Your task to perform on an android device: open app "Pinterest" (install if not already installed), go to login, and select forgot password Image 0: 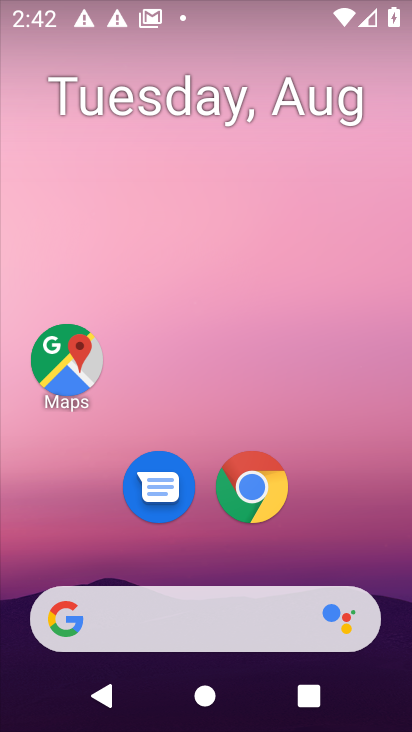
Step 0: drag from (194, 601) to (232, 29)
Your task to perform on an android device: open app "Pinterest" (install if not already installed), go to login, and select forgot password Image 1: 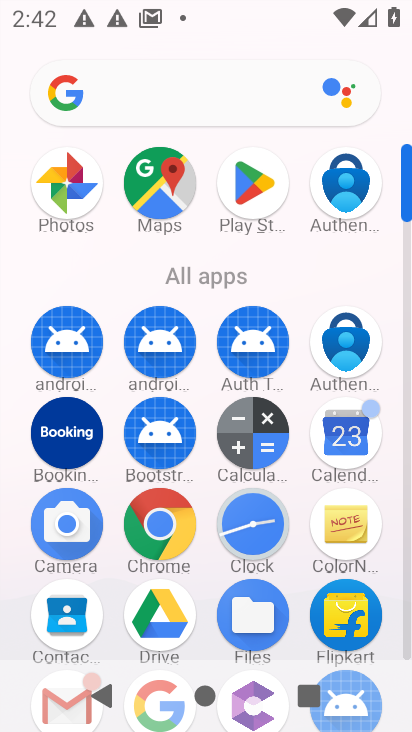
Step 1: click (255, 184)
Your task to perform on an android device: open app "Pinterest" (install if not already installed), go to login, and select forgot password Image 2: 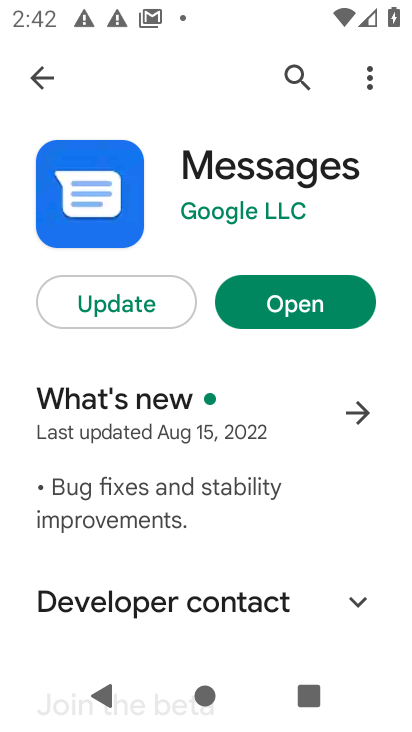
Step 2: press back button
Your task to perform on an android device: open app "Pinterest" (install if not already installed), go to login, and select forgot password Image 3: 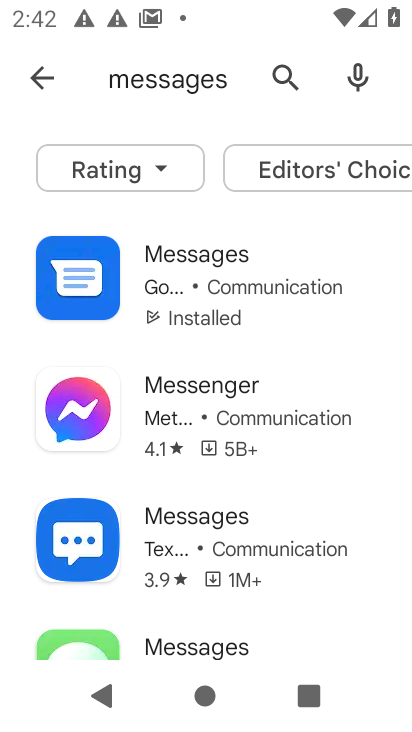
Step 3: press back button
Your task to perform on an android device: open app "Pinterest" (install if not already installed), go to login, and select forgot password Image 4: 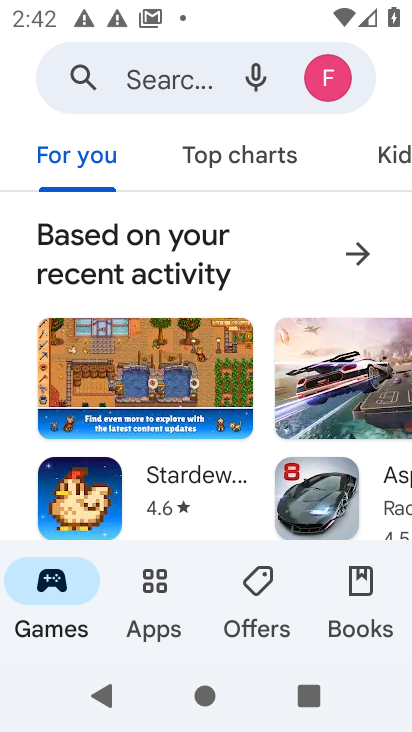
Step 4: click (154, 82)
Your task to perform on an android device: open app "Pinterest" (install if not already installed), go to login, and select forgot password Image 5: 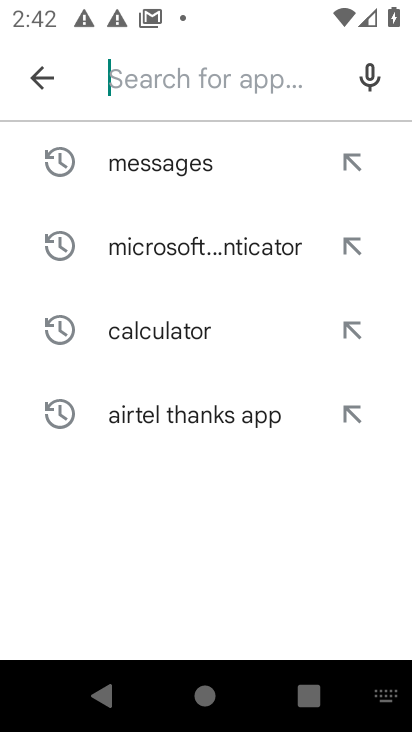
Step 5: type "Pinterest"
Your task to perform on an android device: open app "Pinterest" (install if not already installed), go to login, and select forgot password Image 6: 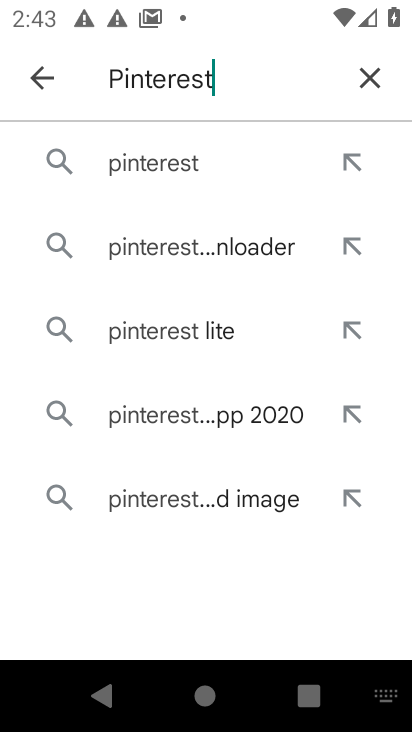
Step 6: click (141, 166)
Your task to perform on an android device: open app "Pinterest" (install if not already installed), go to login, and select forgot password Image 7: 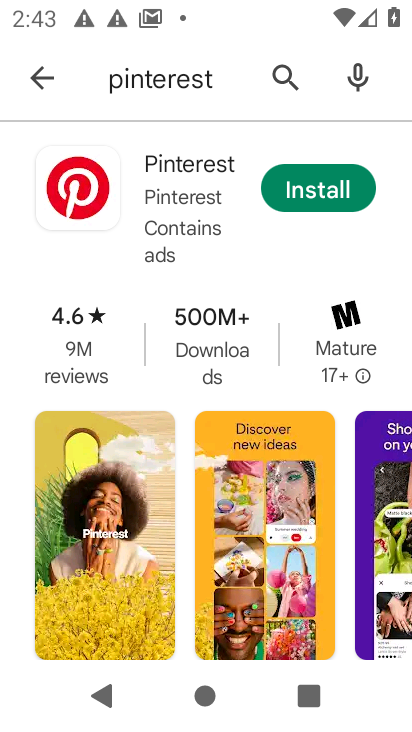
Step 7: click (316, 194)
Your task to perform on an android device: open app "Pinterest" (install if not already installed), go to login, and select forgot password Image 8: 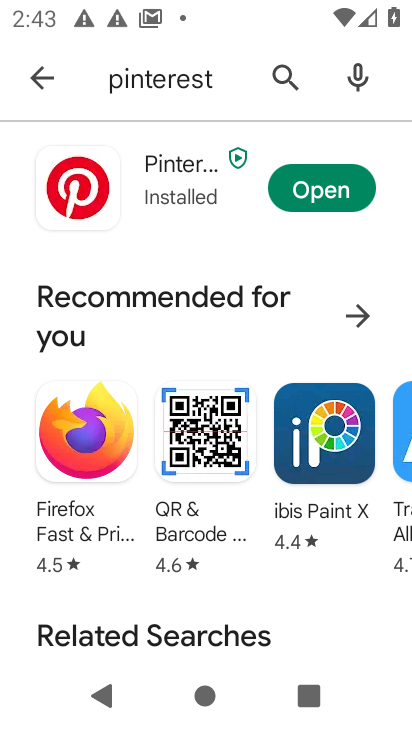
Step 8: click (317, 195)
Your task to perform on an android device: open app "Pinterest" (install if not already installed), go to login, and select forgot password Image 9: 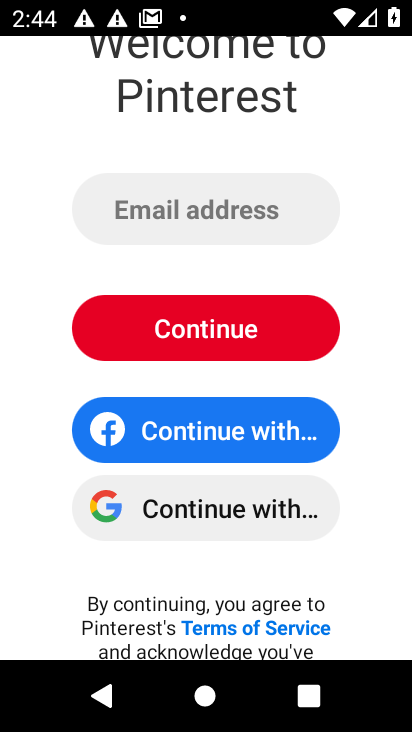
Step 9: click (194, 514)
Your task to perform on an android device: open app "Pinterest" (install if not already installed), go to login, and select forgot password Image 10: 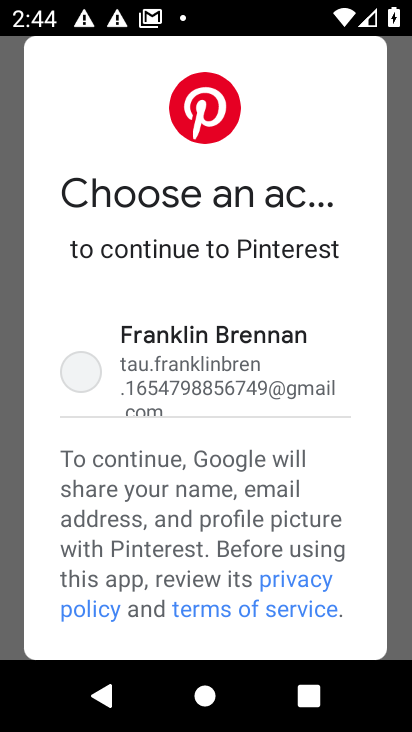
Step 10: drag from (225, 379) to (259, 216)
Your task to perform on an android device: open app "Pinterest" (install if not already installed), go to login, and select forgot password Image 11: 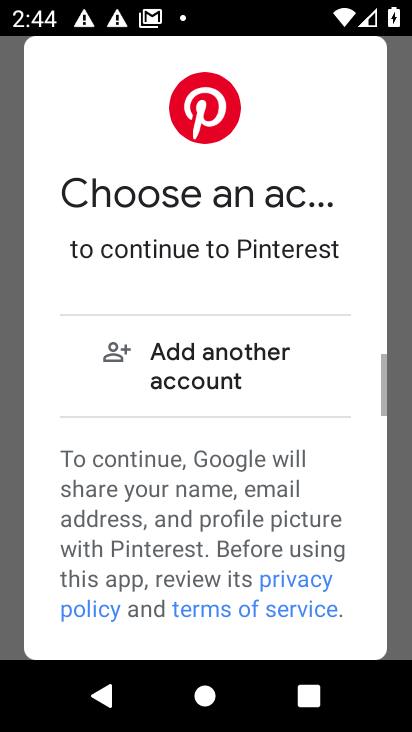
Step 11: click (235, 340)
Your task to perform on an android device: open app "Pinterest" (install if not already installed), go to login, and select forgot password Image 12: 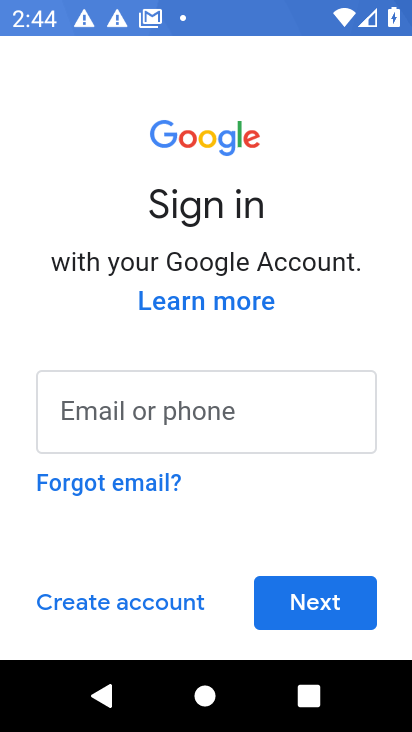
Step 12: drag from (186, 490) to (288, 263)
Your task to perform on an android device: open app "Pinterest" (install if not already installed), go to login, and select forgot password Image 13: 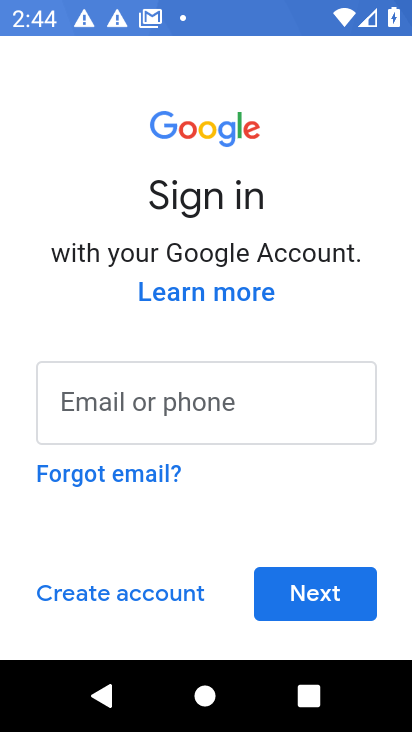
Step 13: click (198, 404)
Your task to perform on an android device: open app "Pinterest" (install if not already installed), go to login, and select forgot password Image 14: 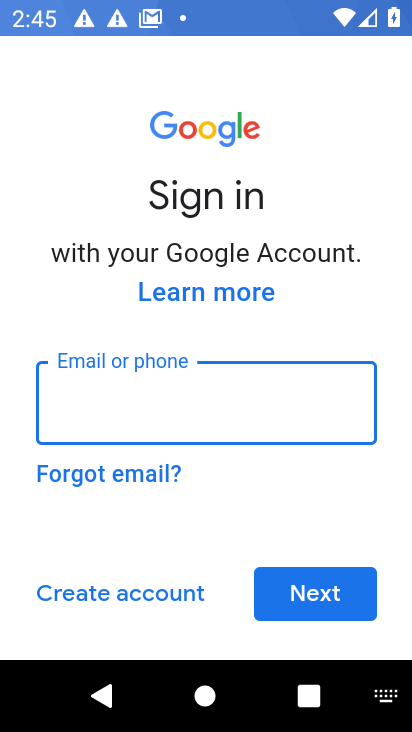
Step 14: type "Sona.rani@gmail.com"
Your task to perform on an android device: open app "Pinterest" (install if not already installed), go to login, and select forgot password Image 15: 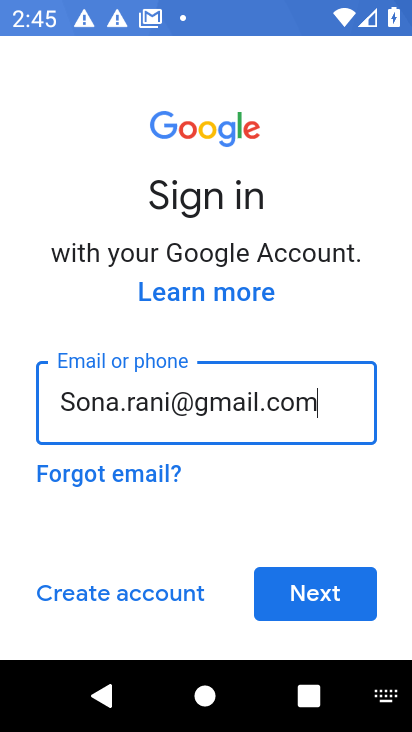
Step 15: click (287, 587)
Your task to perform on an android device: open app "Pinterest" (install if not already installed), go to login, and select forgot password Image 16: 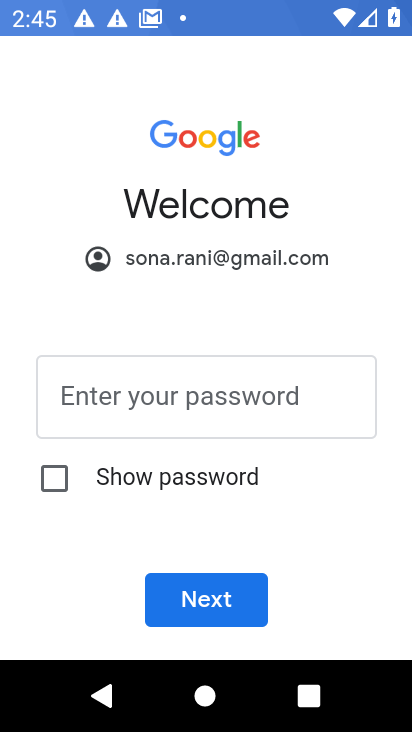
Step 16: drag from (247, 397) to (311, 214)
Your task to perform on an android device: open app "Pinterest" (install if not already installed), go to login, and select forgot password Image 17: 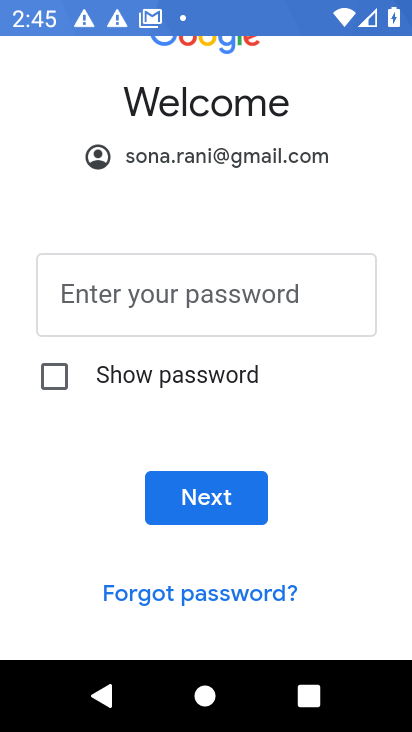
Step 17: click (214, 591)
Your task to perform on an android device: open app "Pinterest" (install if not already installed), go to login, and select forgot password Image 18: 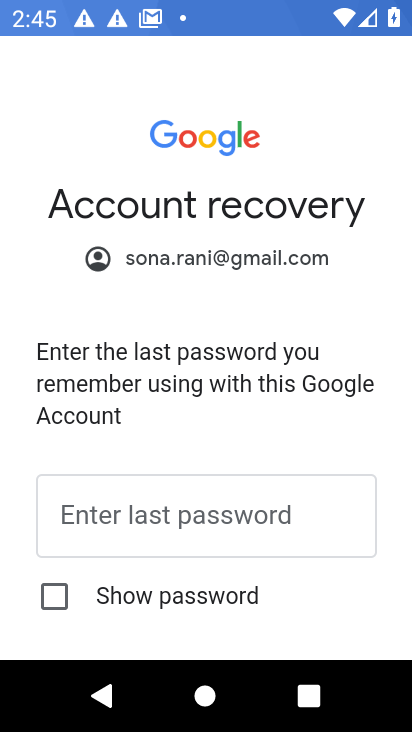
Step 18: task complete